Your task to perform on an android device: Check the weather Image 0: 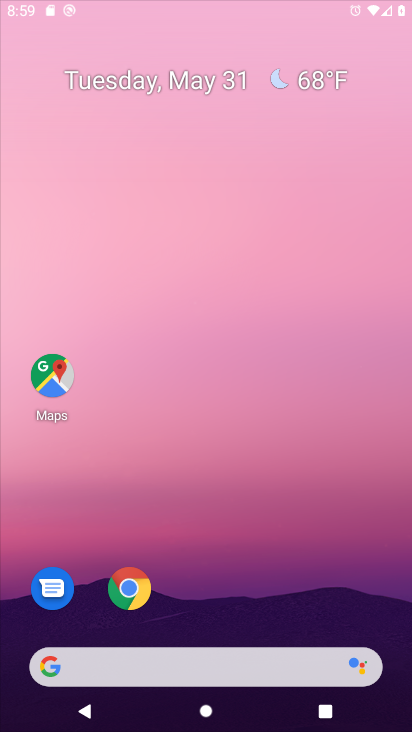
Step 0: press home button
Your task to perform on an android device: Check the weather Image 1: 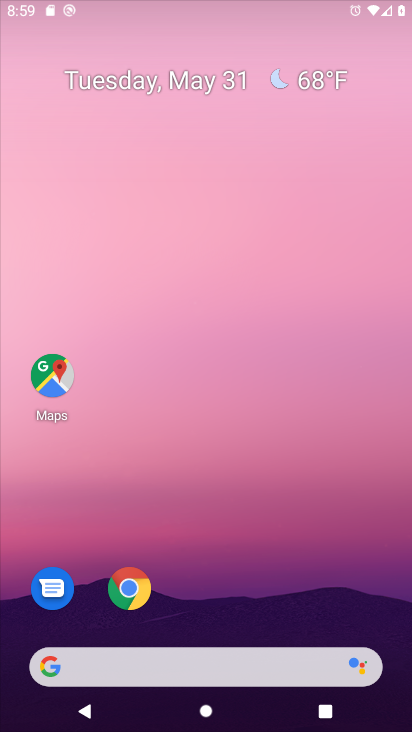
Step 1: drag from (114, 660) to (327, 109)
Your task to perform on an android device: Check the weather Image 2: 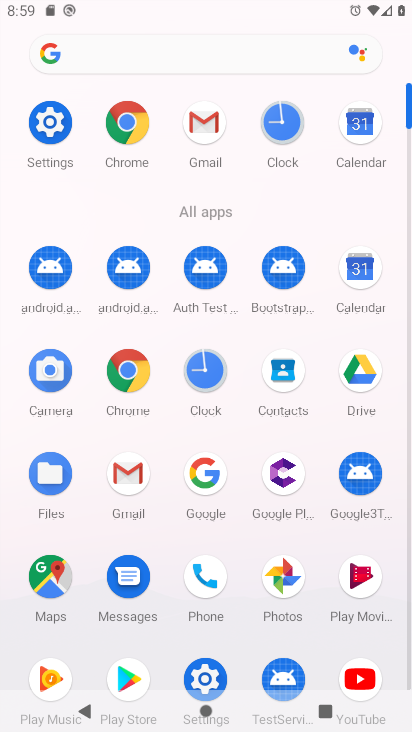
Step 2: click (210, 474)
Your task to perform on an android device: Check the weather Image 3: 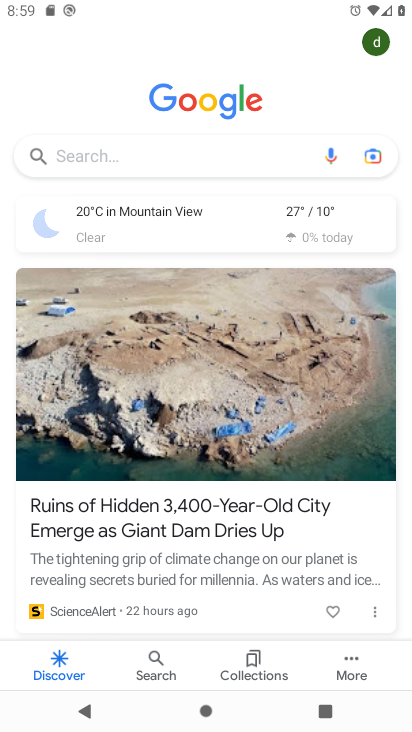
Step 3: click (303, 211)
Your task to perform on an android device: Check the weather Image 4: 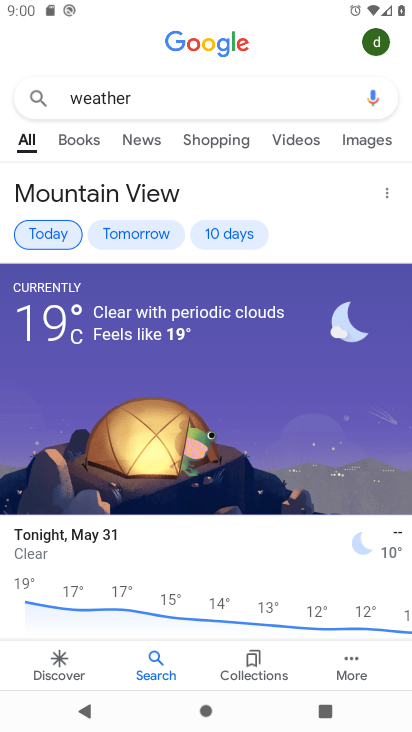
Step 4: task complete